Your task to perform on an android device: check the backup settings in the google photos Image 0: 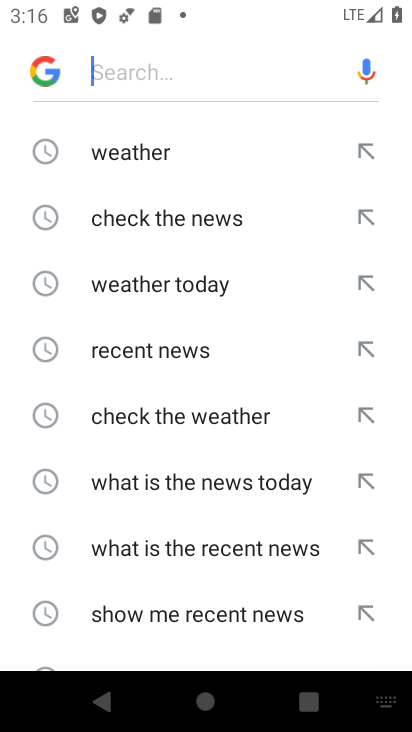
Step 0: press home button
Your task to perform on an android device: check the backup settings in the google photos Image 1: 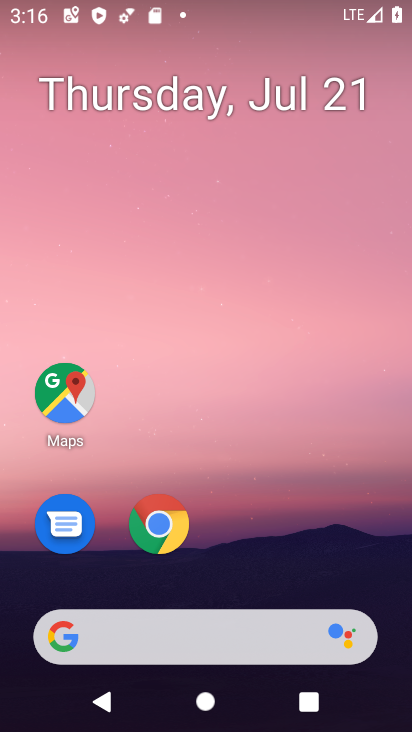
Step 1: drag from (234, 473) to (259, 0)
Your task to perform on an android device: check the backup settings in the google photos Image 2: 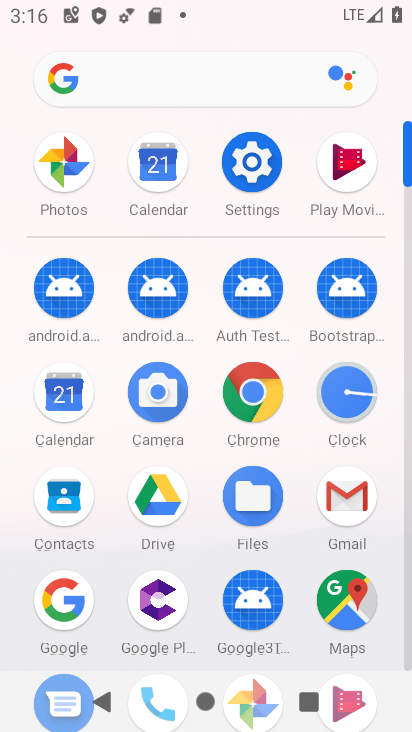
Step 2: click (72, 164)
Your task to perform on an android device: check the backup settings in the google photos Image 3: 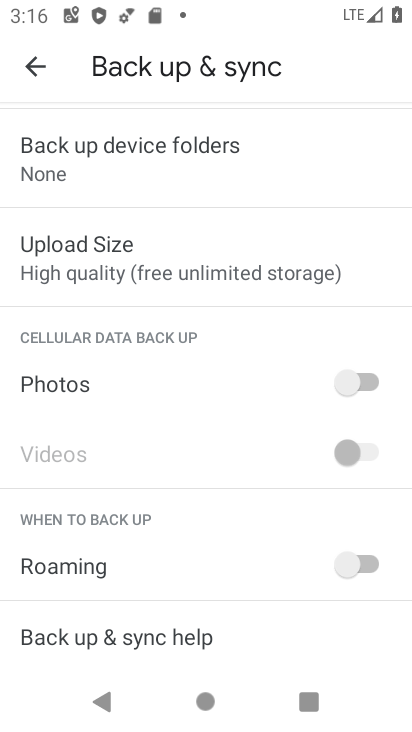
Step 3: task complete